Your task to perform on an android device: Go to accessibility settings Image 0: 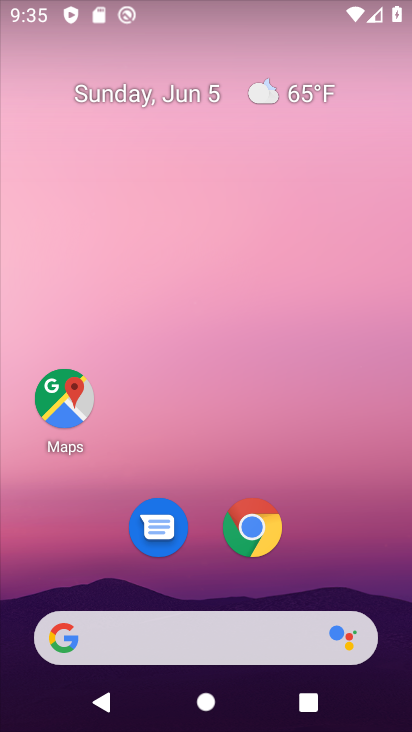
Step 0: drag from (210, 456) to (264, 73)
Your task to perform on an android device: Go to accessibility settings Image 1: 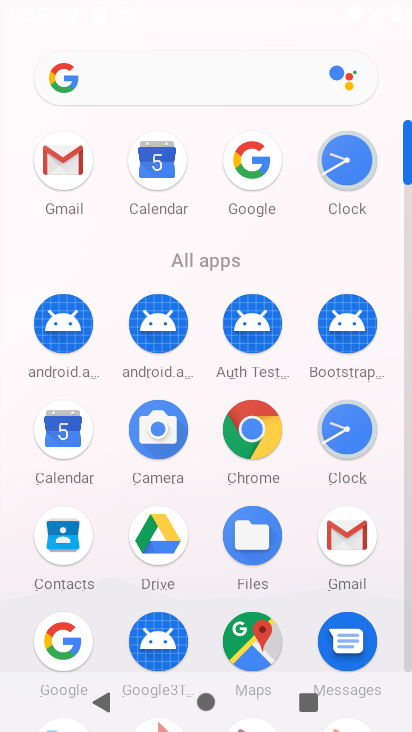
Step 1: drag from (193, 617) to (257, 77)
Your task to perform on an android device: Go to accessibility settings Image 2: 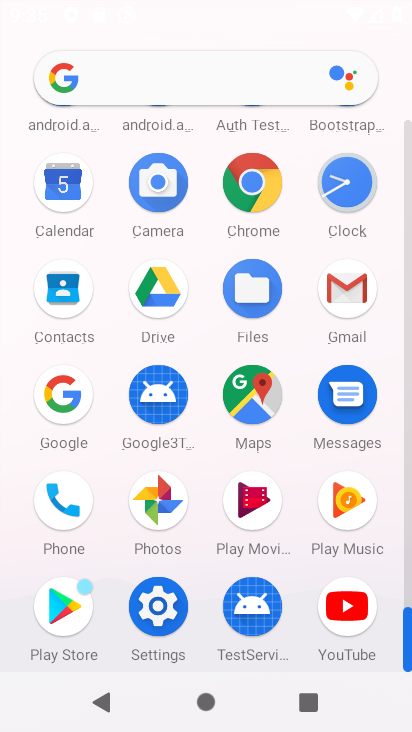
Step 2: click (151, 603)
Your task to perform on an android device: Go to accessibility settings Image 3: 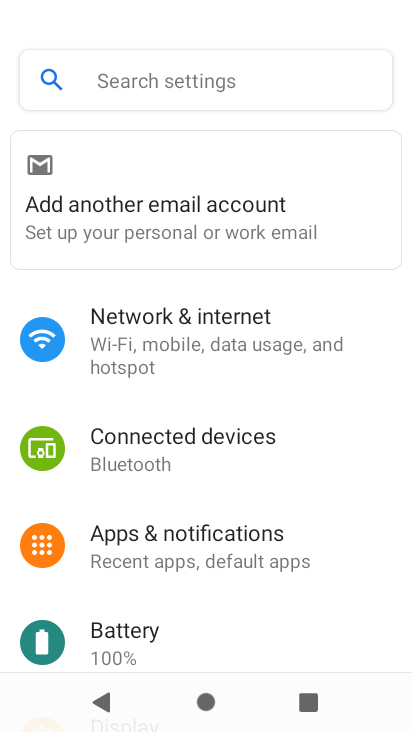
Step 3: drag from (213, 633) to (283, 89)
Your task to perform on an android device: Go to accessibility settings Image 4: 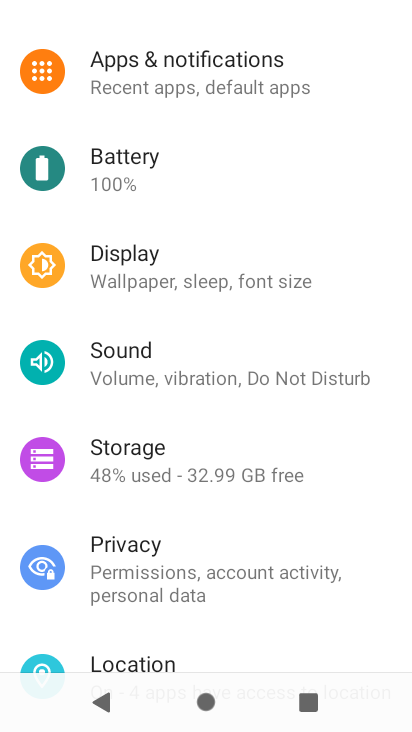
Step 4: drag from (163, 596) to (188, 240)
Your task to perform on an android device: Go to accessibility settings Image 5: 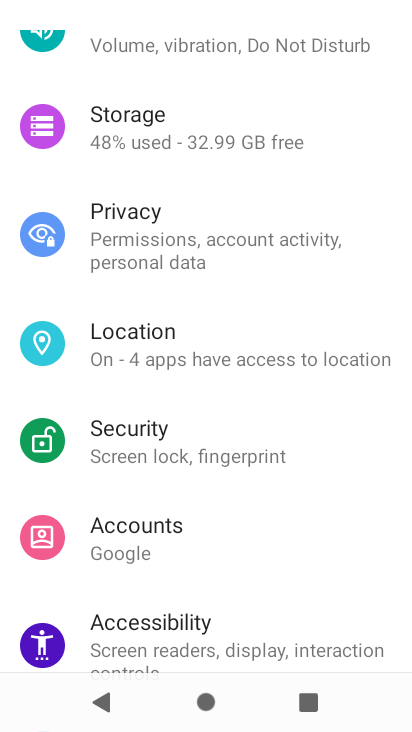
Step 5: click (131, 631)
Your task to perform on an android device: Go to accessibility settings Image 6: 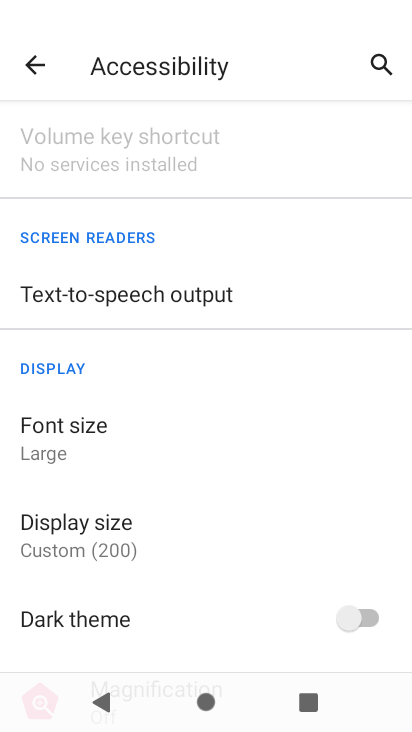
Step 6: task complete